Your task to perform on an android device: open a bookmark in the chrome app Image 0: 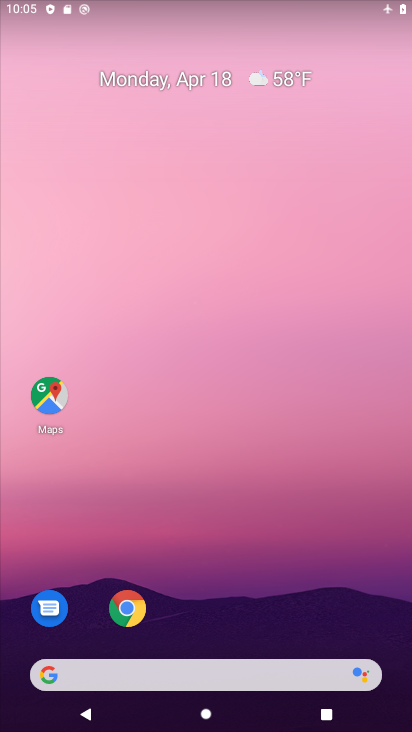
Step 0: drag from (335, 556) to (225, 132)
Your task to perform on an android device: open a bookmark in the chrome app Image 1: 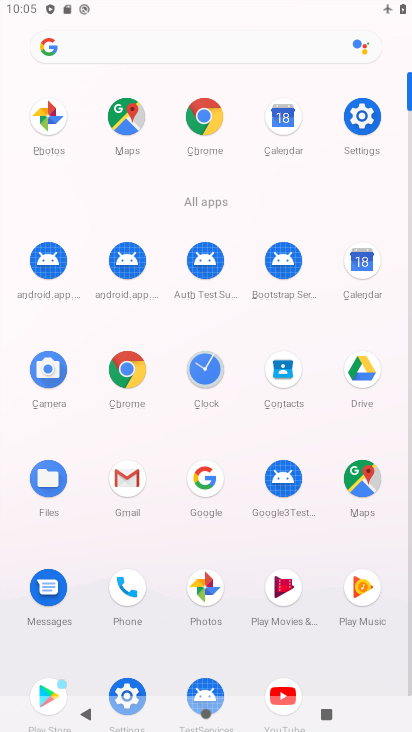
Step 1: click (214, 136)
Your task to perform on an android device: open a bookmark in the chrome app Image 2: 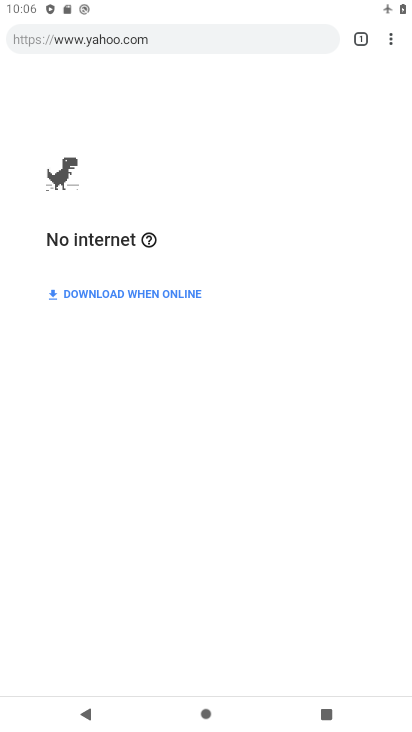
Step 2: task complete